Your task to perform on an android device: Search for Mexican restaurants on Maps Image 0: 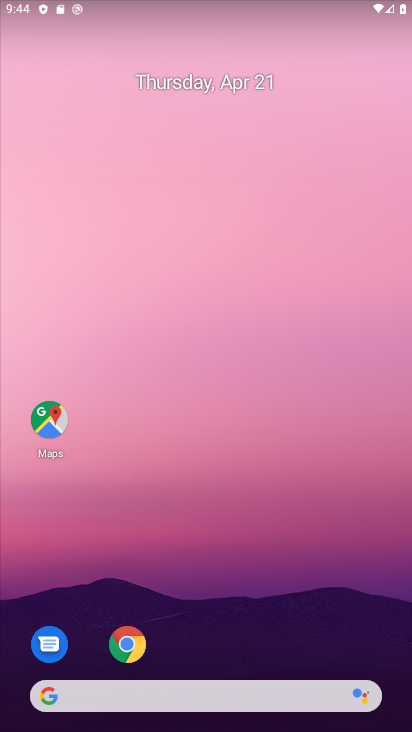
Step 0: click (53, 423)
Your task to perform on an android device: Search for Mexican restaurants on Maps Image 1: 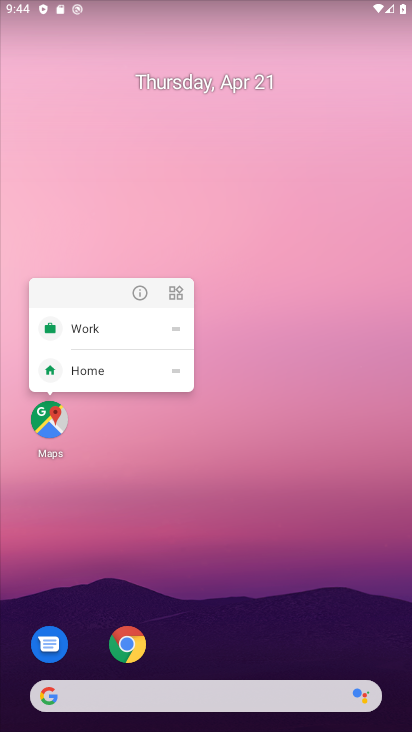
Step 1: click (53, 423)
Your task to perform on an android device: Search for Mexican restaurants on Maps Image 2: 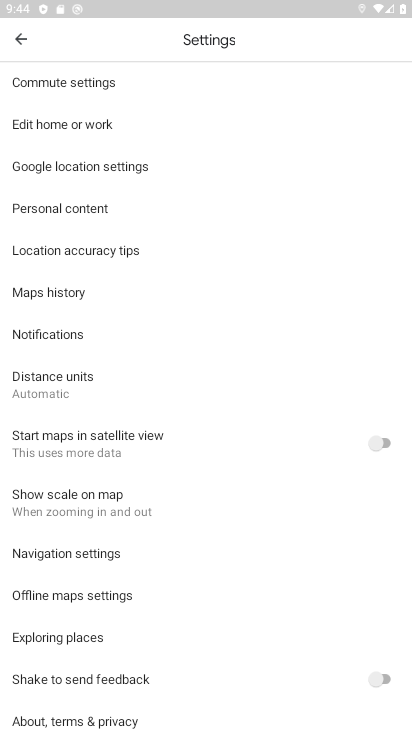
Step 2: click (20, 41)
Your task to perform on an android device: Search for Mexican restaurants on Maps Image 3: 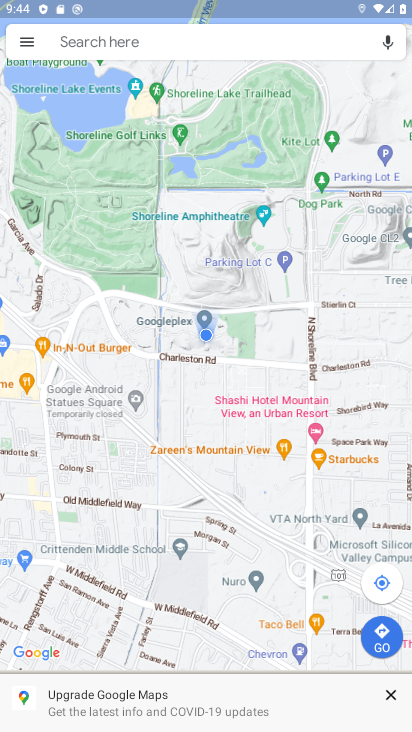
Step 3: click (182, 38)
Your task to perform on an android device: Search for Mexican restaurants on Maps Image 4: 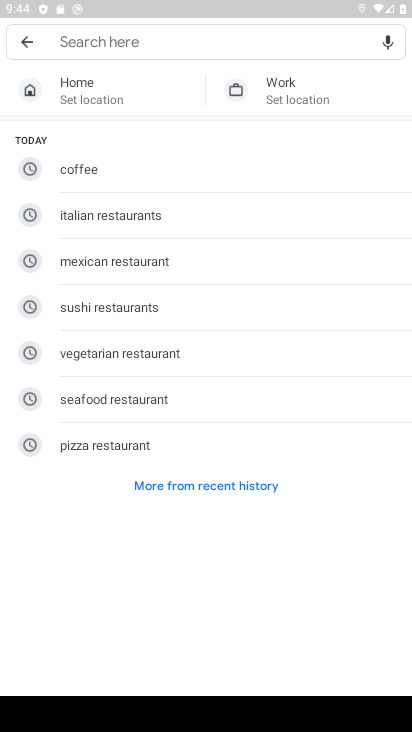
Step 4: click (133, 259)
Your task to perform on an android device: Search for Mexican restaurants on Maps Image 5: 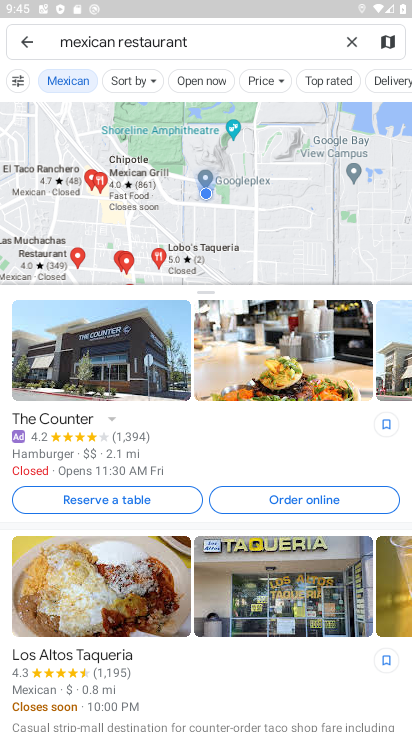
Step 5: task complete